Your task to perform on an android device: toggle location history Image 0: 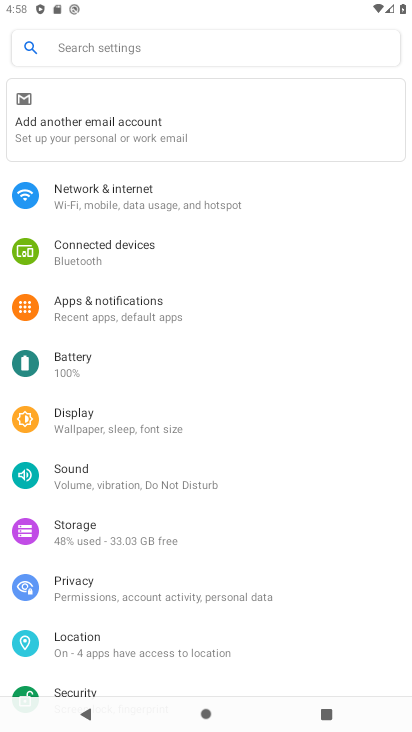
Step 0: click (97, 636)
Your task to perform on an android device: toggle location history Image 1: 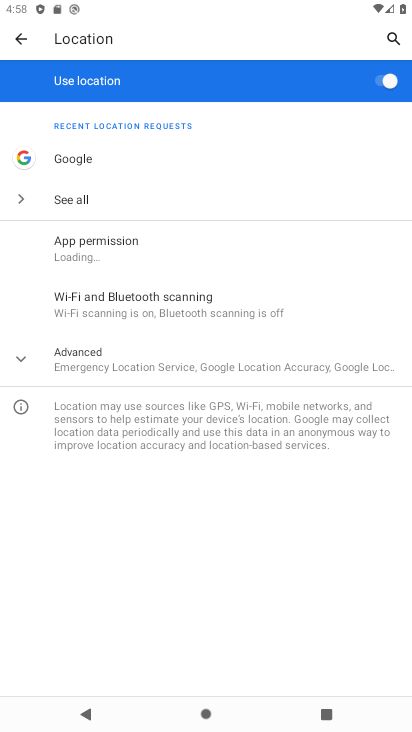
Step 1: click (110, 377)
Your task to perform on an android device: toggle location history Image 2: 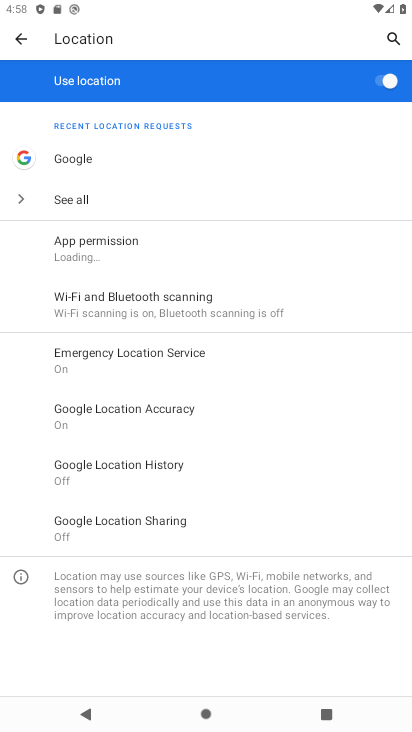
Step 2: click (134, 457)
Your task to perform on an android device: toggle location history Image 3: 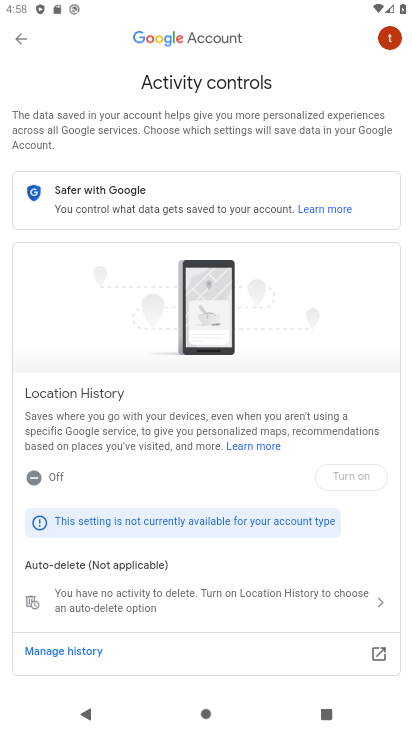
Step 3: task complete